Your task to perform on an android device: change the clock display to show seconds Image 0: 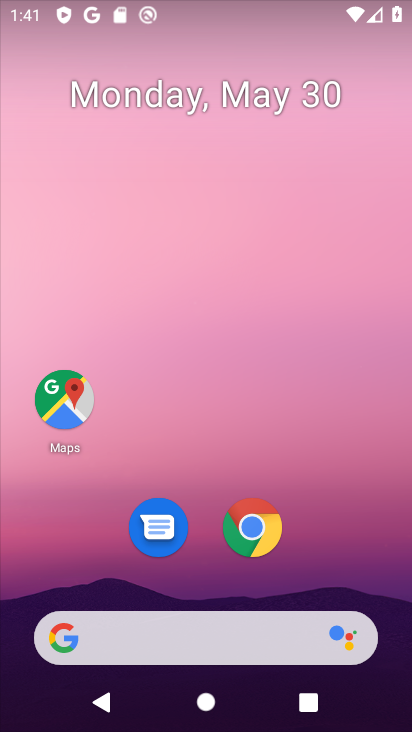
Step 0: drag from (14, 506) to (217, 99)
Your task to perform on an android device: change the clock display to show seconds Image 1: 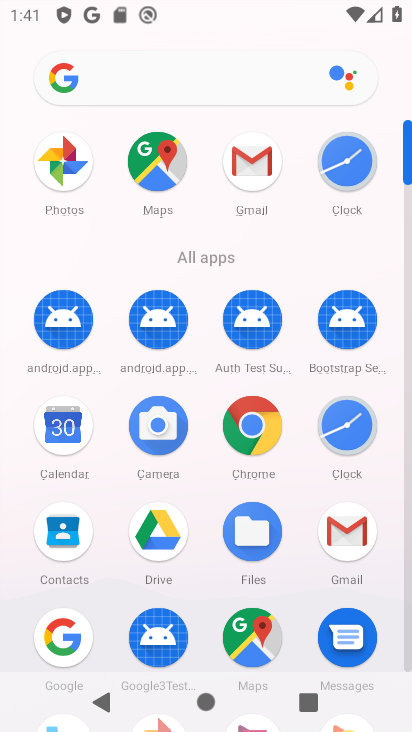
Step 1: click (341, 161)
Your task to perform on an android device: change the clock display to show seconds Image 2: 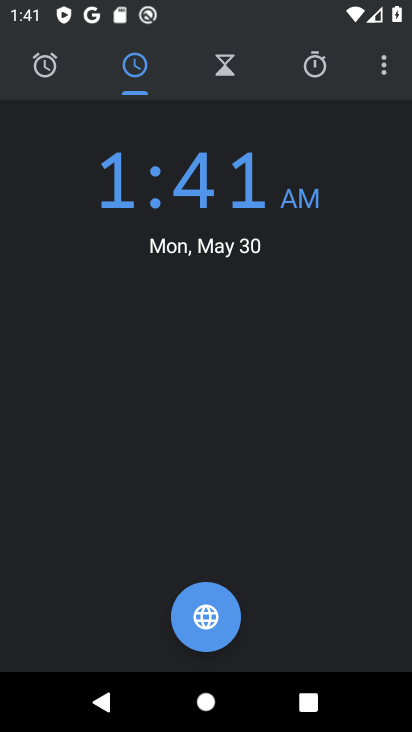
Step 2: click (384, 62)
Your task to perform on an android device: change the clock display to show seconds Image 3: 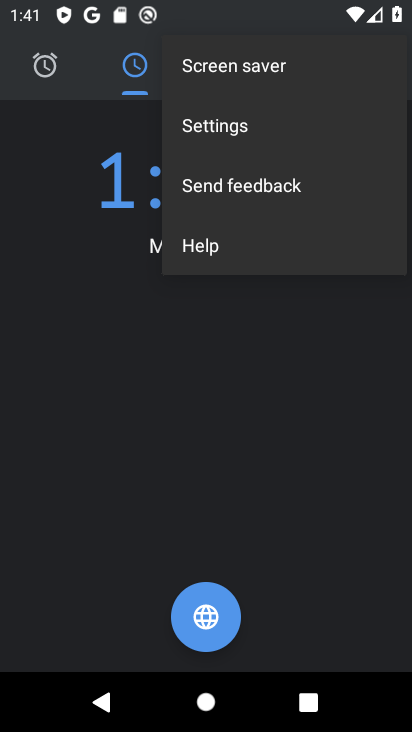
Step 3: click (223, 128)
Your task to perform on an android device: change the clock display to show seconds Image 4: 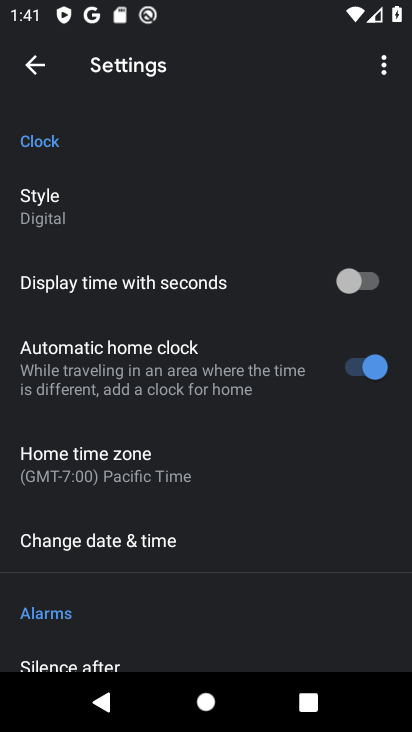
Step 4: click (358, 285)
Your task to perform on an android device: change the clock display to show seconds Image 5: 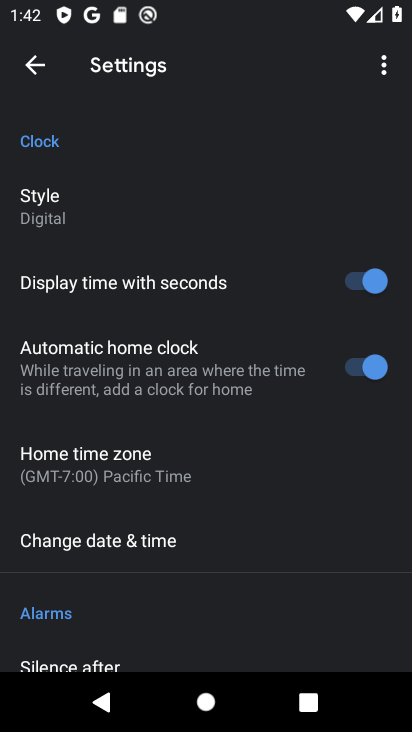
Step 5: task complete